Your task to perform on an android device: Is it going to rain tomorrow? Image 0: 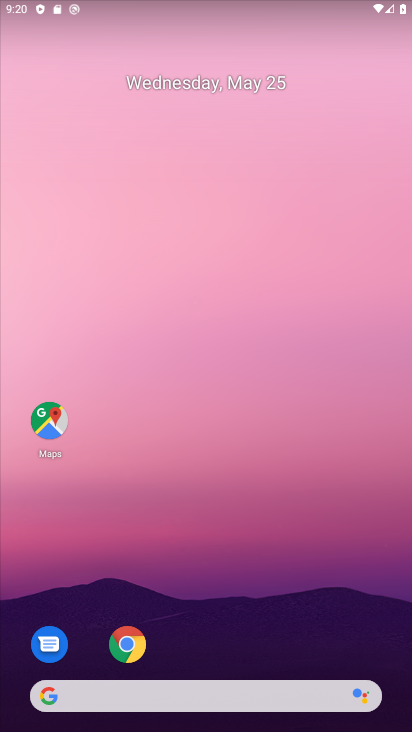
Step 0: click (138, 691)
Your task to perform on an android device: Is it going to rain tomorrow? Image 1: 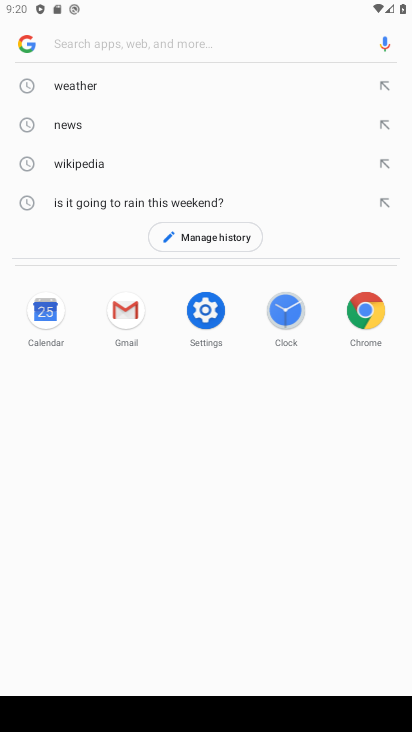
Step 1: click (64, 90)
Your task to perform on an android device: Is it going to rain tomorrow? Image 2: 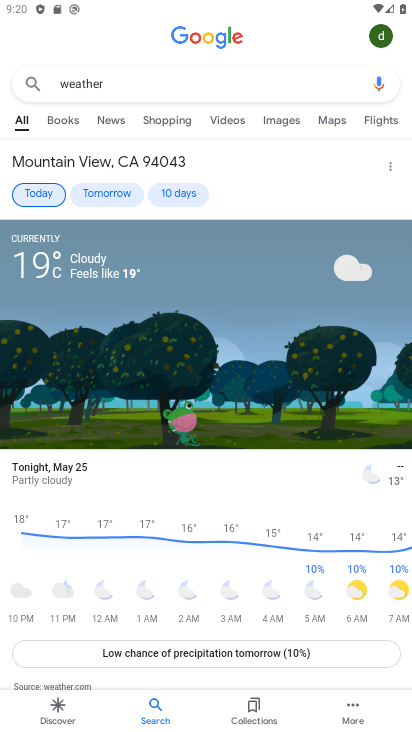
Step 2: click (99, 198)
Your task to perform on an android device: Is it going to rain tomorrow? Image 3: 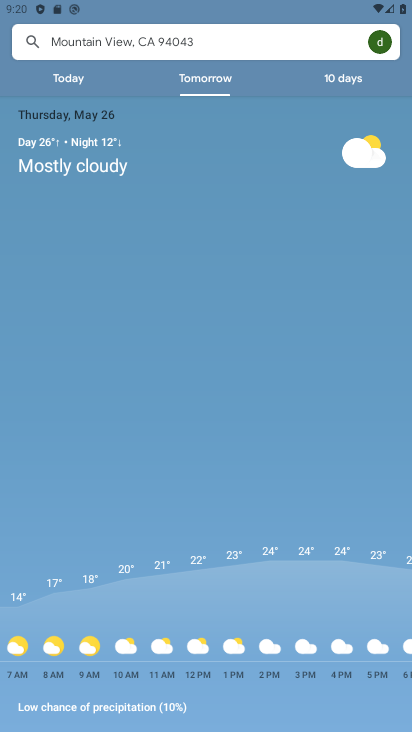
Step 3: task complete